Your task to perform on an android device: turn notification dots on Image 0: 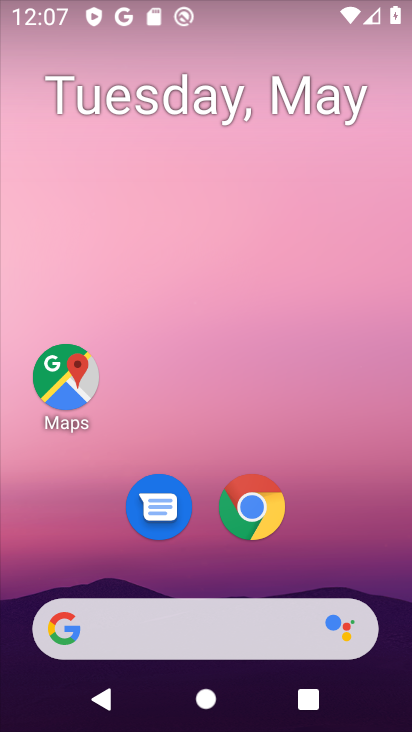
Step 0: drag from (386, 590) to (388, 355)
Your task to perform on an android device: turn notification dots on Image 1: 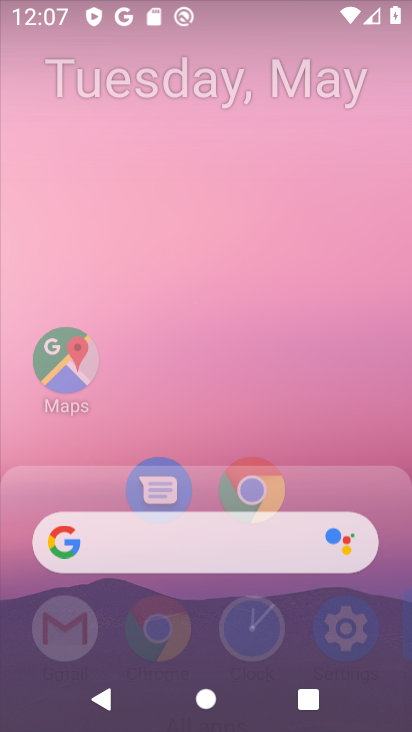
Step 1: drag from (256, 348) to (330, 56)
Your task to perform on an android device: turn notification dots on Image 2: 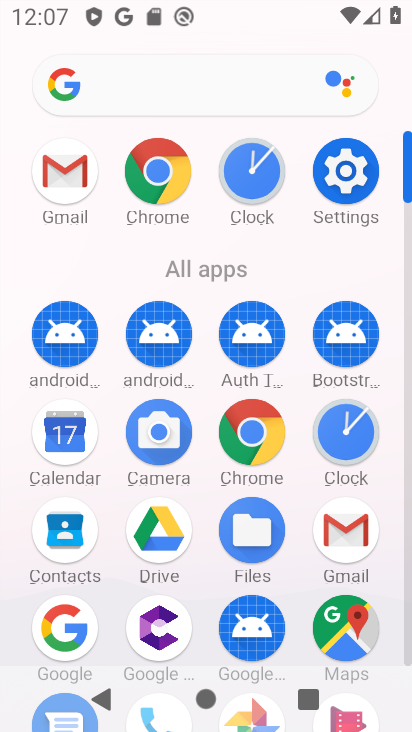
Step 2: click (355, 184)
Your task to perform on an android device: turn notification dots on Image 3: 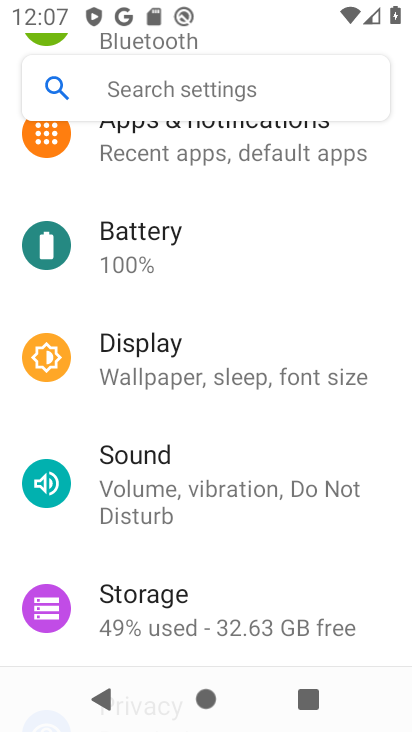
Step 3: drag from (300, 252) to (318, 460)
Your task to perform on an android device: turn notification dots on Image 4: 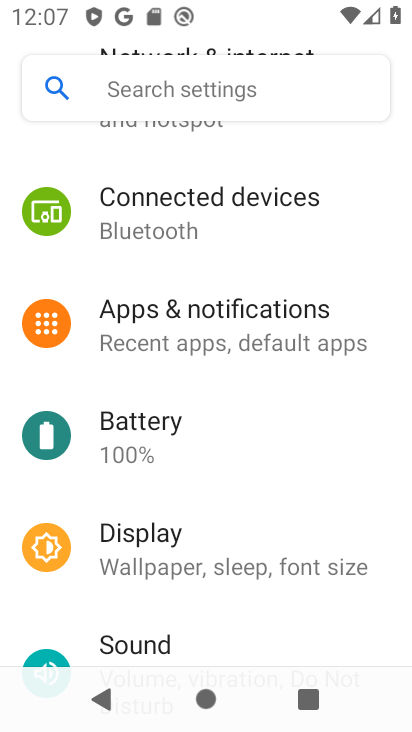
Step 4: drag from (341, 286) to (336, 425)
Your task to perform on an android device: turn notification dots on Image 5: 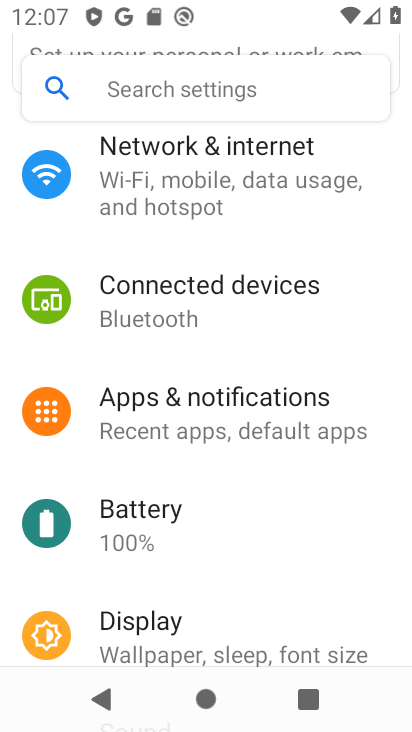
Step 5: drag from (375, 222) to (362, 416)
Your task to perform on an android device: turn notification dots on Image 6: 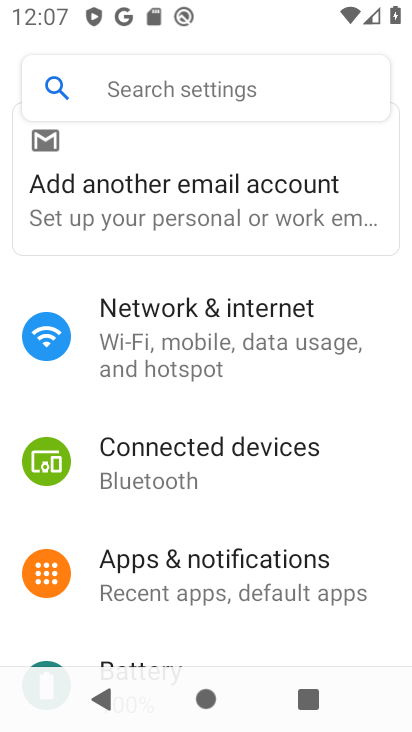
Step 6: drag from (373, 514) to (395, 326)
Your task to perform on an android device: turn notification dots on Image 7: 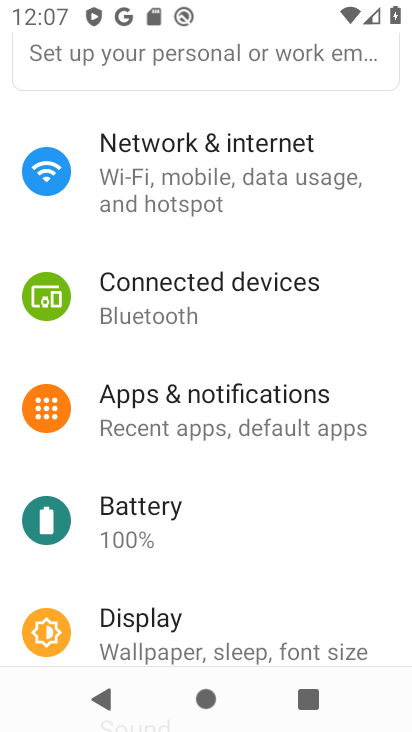
Step 7: drag from (347, 581) to (344, 406)
Your task to perform on an android device: turn notification dots on Image 8: 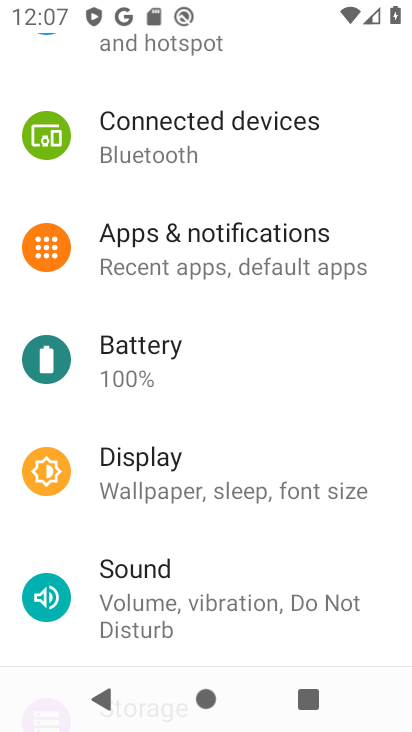
Step 8: click (290, 266)
Your task to perform on an android device: turn notification dots on Image 9: 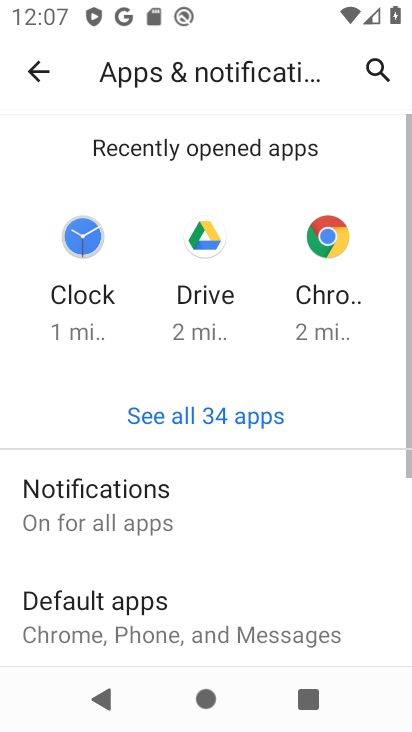
Step 9: click (160, 524)
Your task to perform on an android device: turn notification dots on Image 10: 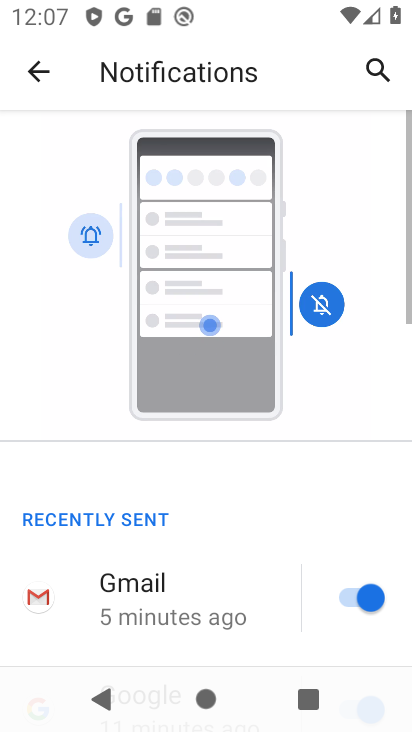
Step 10: drag from (264, 534) to (273, 379)
Your task to perform on an android device: turn notification dots on Image 11: 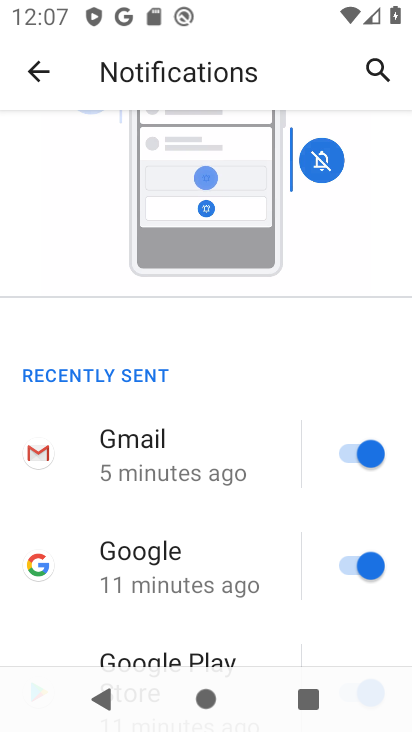
Step 11: drag from (239, 609) to (255, 413)
Your task to perform on an android device: turn notification dots on Image 12: 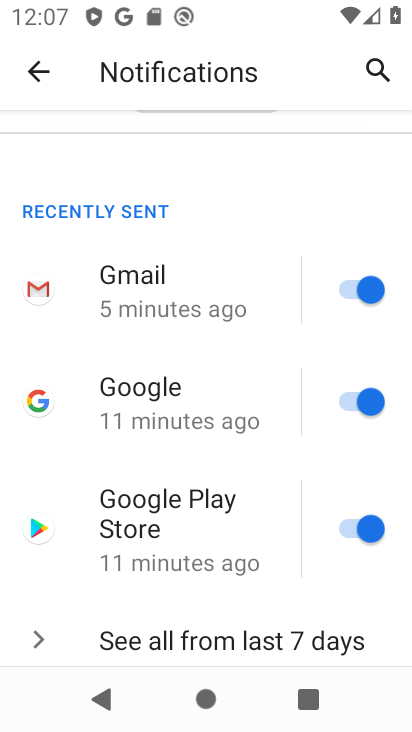
Step 12: drag from (259, 605) to (275, 471)
Your task to perform on an android device: turn notification dots on Image 13: 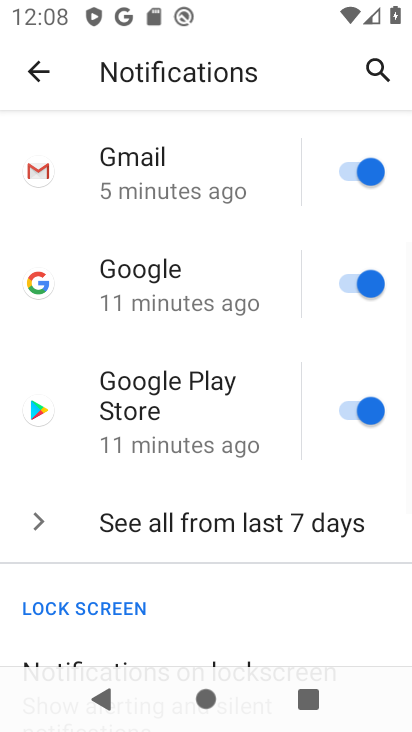
Step 13: drag from (254, 567) to (273, 413)
Your task to perform on an android device: turn notification dots on Image 14: 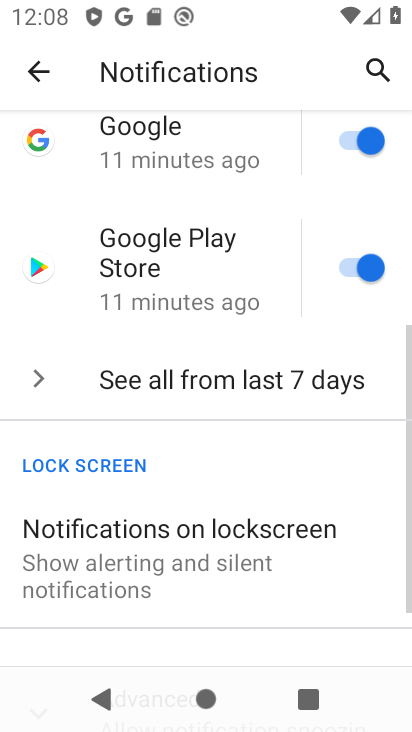
Step 14: drag from (289, 566) to (292, 454)
Your task to perform on an android device: turn notification dots on Image 15: 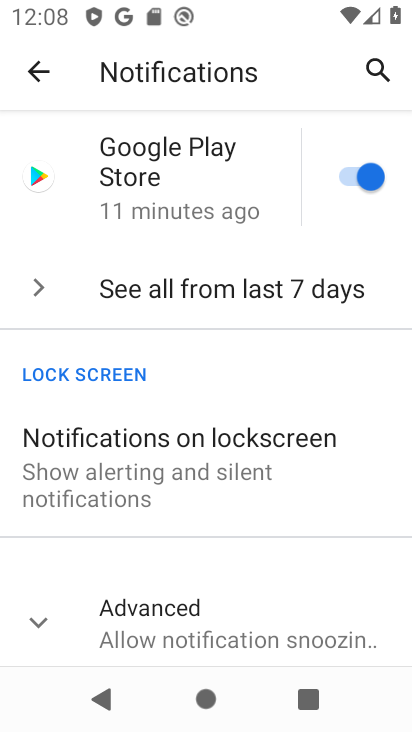
Step 15: click (222, 647)
Your task to perform on an android device: turn notification dots on Image 16: 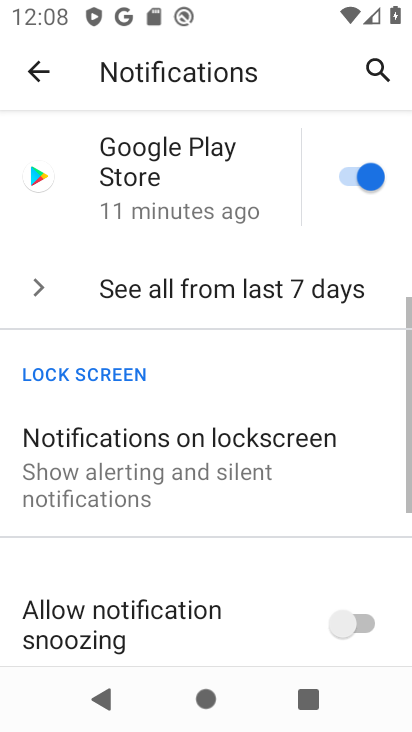
Step 16: task complete